Your task to perform on an android device: allow cookies in the chrome app Image 0: 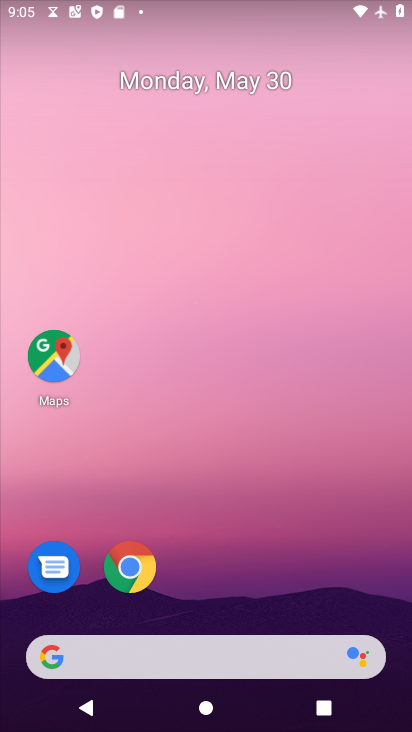
Step 0: drag from (234, 608) to (176, 190)
Your task to perform on an android device: allow cookies in the chrome app Image 1: 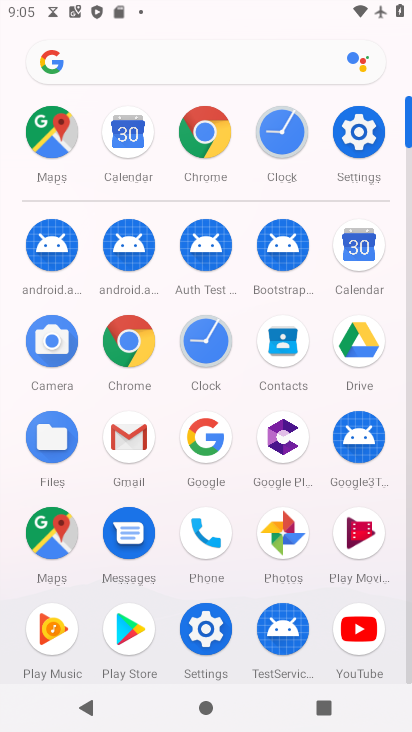
Step 1: click (206, 141)
Your task to perform on an android device: allow cookies in the chrome app Image 2: 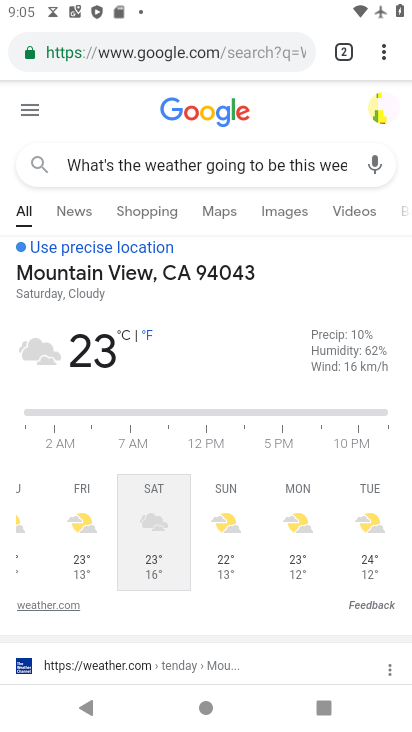
Step 2: click (387, 52)
Your task to perform on an android device: allow cookies in the chrome app Image 3: 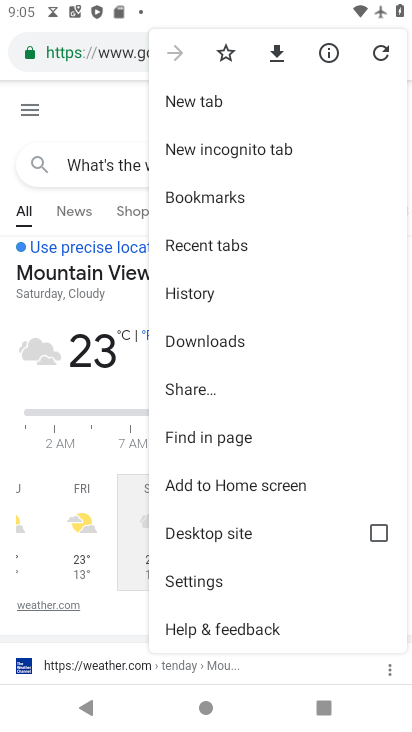
Step 3: click (261, 587)
Your task to perform on an android device: allow cookies in the chrome app Image 4: 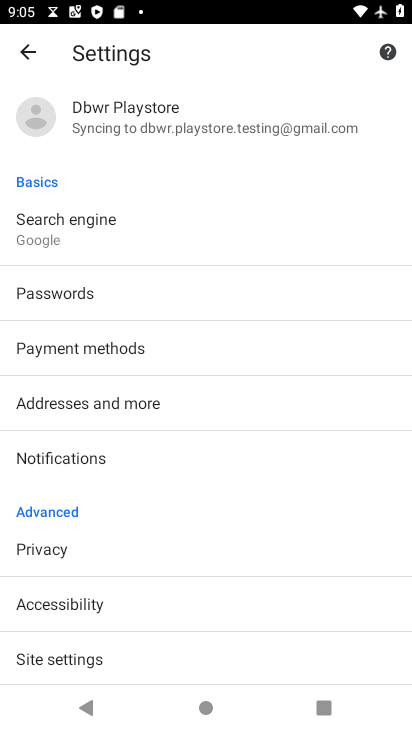
Step 4: drag from (213, 643) to (192, 370)
Your task to perform on an android device: allow cookies in the chrome app Image 5: 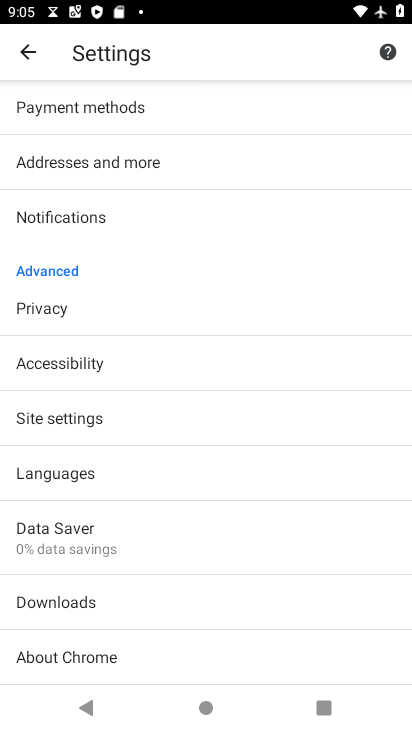
Step 5: click (191, 416)
Your task to perform on an android device: allow cookies in the chrome app Image 6: 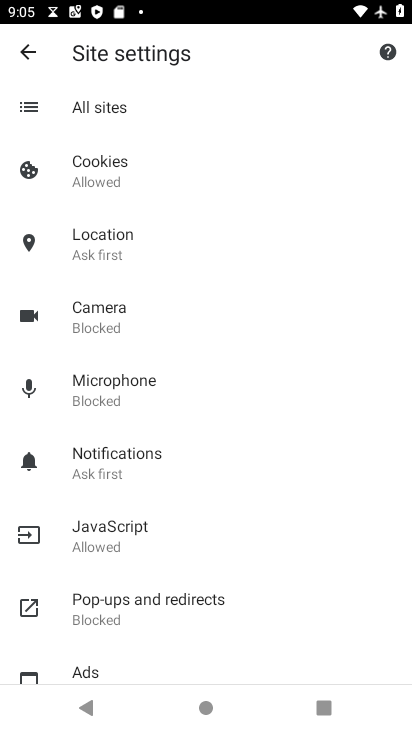
Step 6: click (195, 161)
Your task to perform on an android device: allow cookies in the chrome app Image 7: 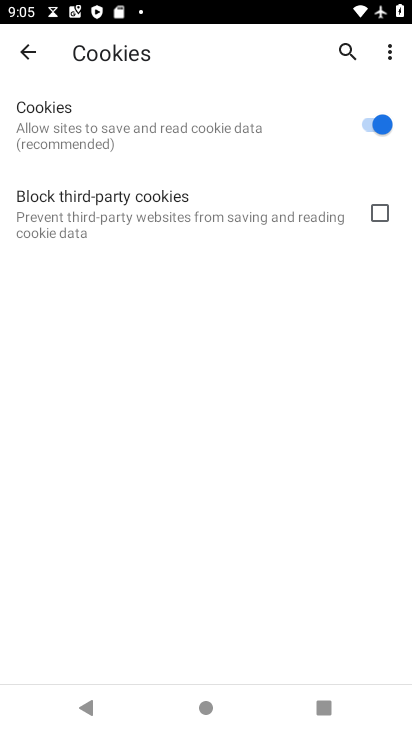
Step 7: task complete